Your task to perform on an android device: check android version Image 0: 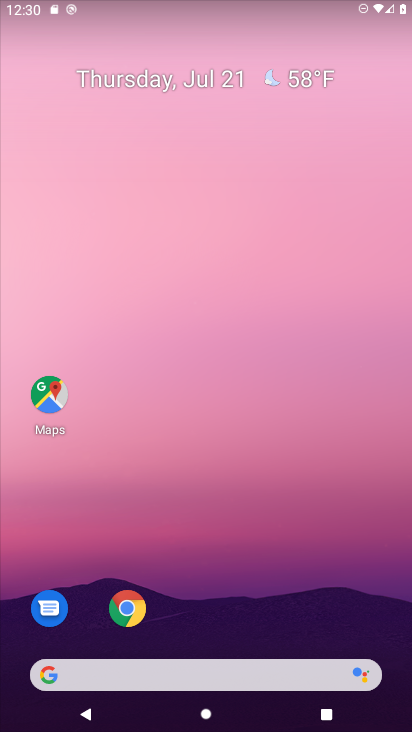
Step 0: press home button
Your task to perform on an android device: check android version Image 1: 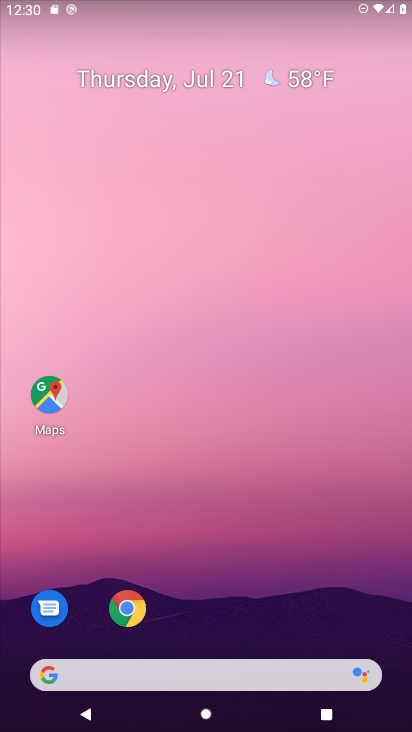
Step 1: drag from (219, 641) to (225, 8)
Your task to perform on an android device: check android version Image 2: 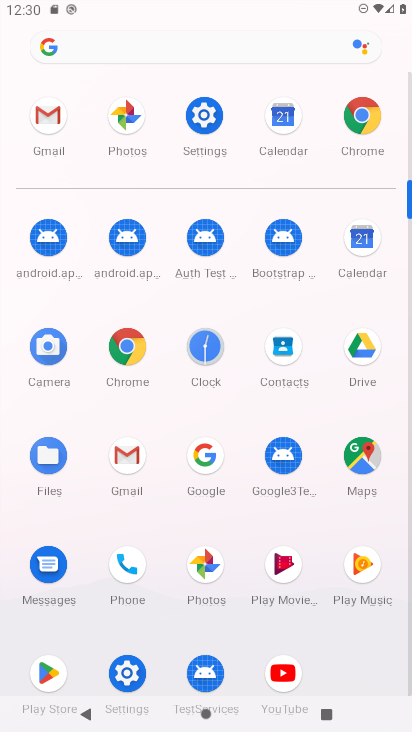
Step 2: click (132, 686)
Your task to perform on an android device: check android version Image 3: 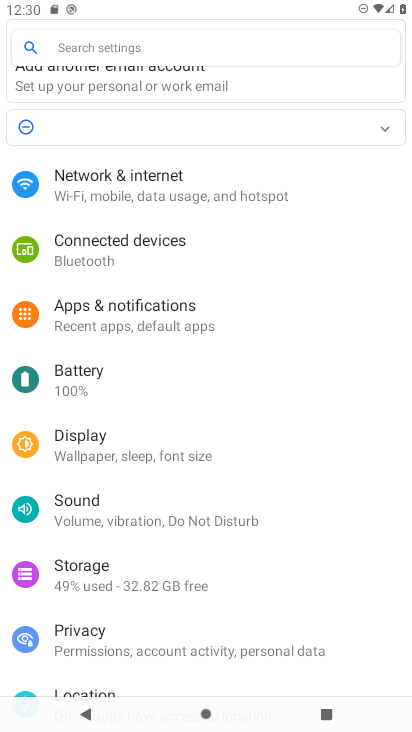
Step 3: drag from (314, 633) to (270, 5)
Your task to perform on an android device: check android version Image 4: 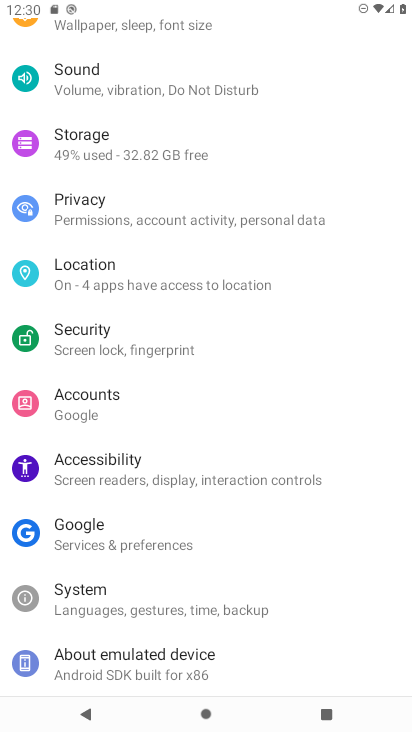
Step 4: click (83, 655)
Your task to perform on an android device: check android version Image 5: 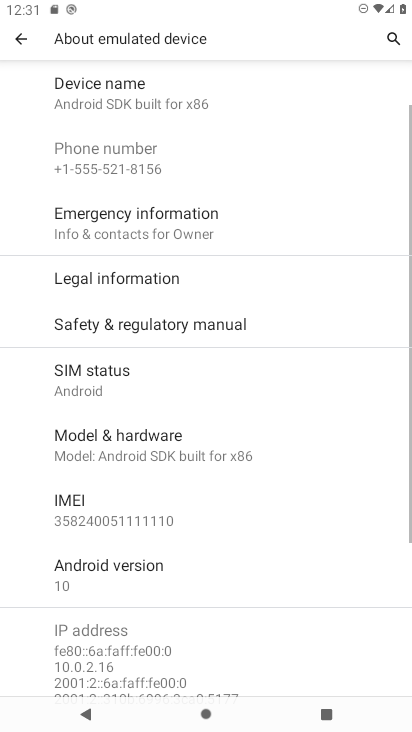
Step 5: task complete